Your task to perform on an android device: Go to battery settings Image 0: 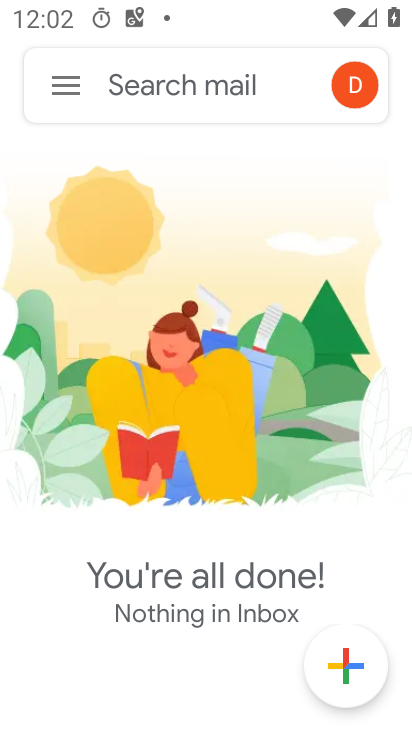
Step 0: press home button
Your task to perform on an android device: Go to battery settings Image 1: 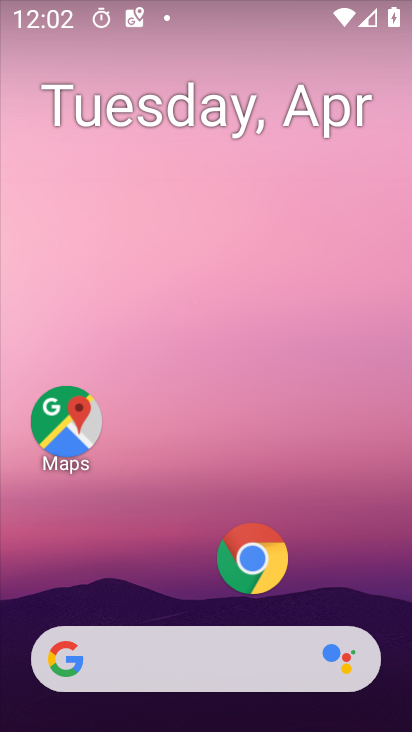
Step 1: drag from (153, 606) to (161, 201)
Your task to perform on an android device: Go to battery settings Image 2: 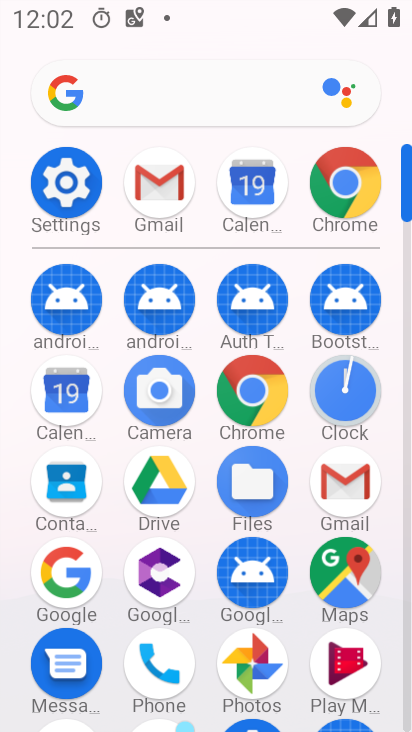
Step 2: drag from (198, 608) to (253, 246)
Your task to perform on an android device: Go to battery settings Image 3: 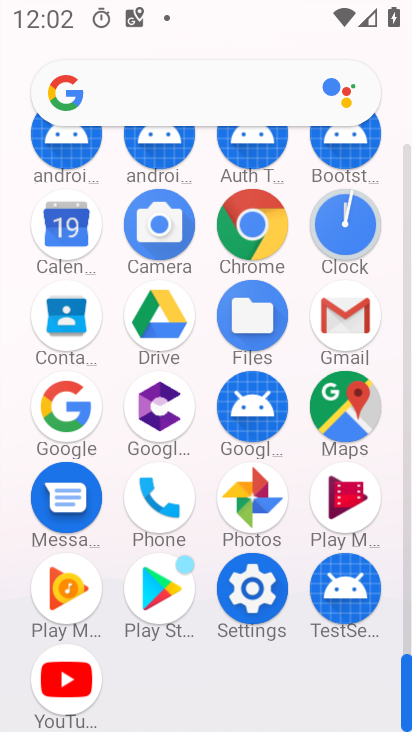
Step 3: click (256, 583)
Your task to perform on an android device: Go to battery settings Image 4: 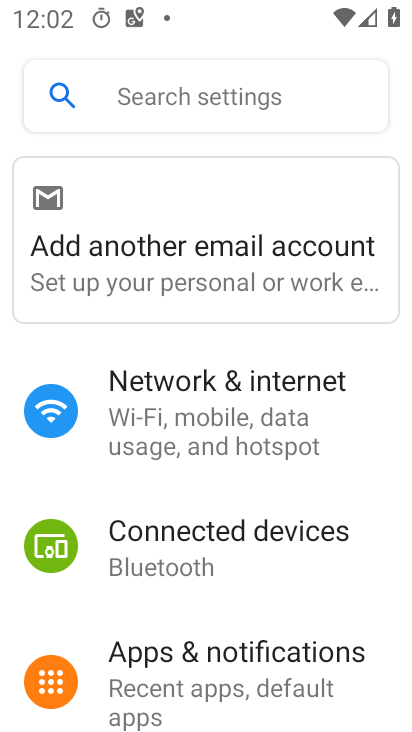
Step 4: drag from (205, 649) to (223, 250)
Your task to perform on an android device: Go to battery settings Image 5: 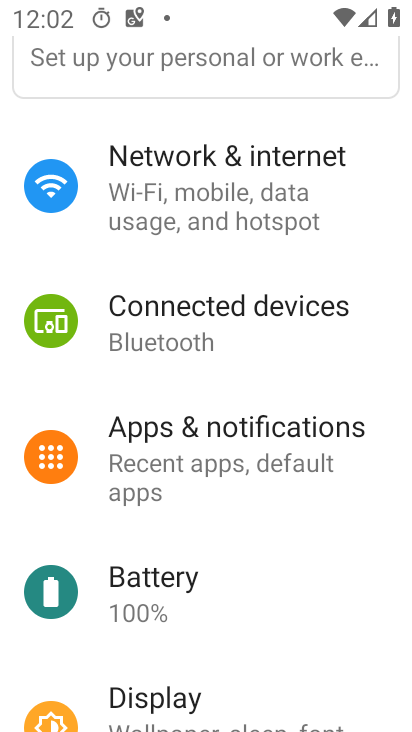
Step 5: click (160, 590)
Your task to perform on an android device: Go to battery settings Image 6: 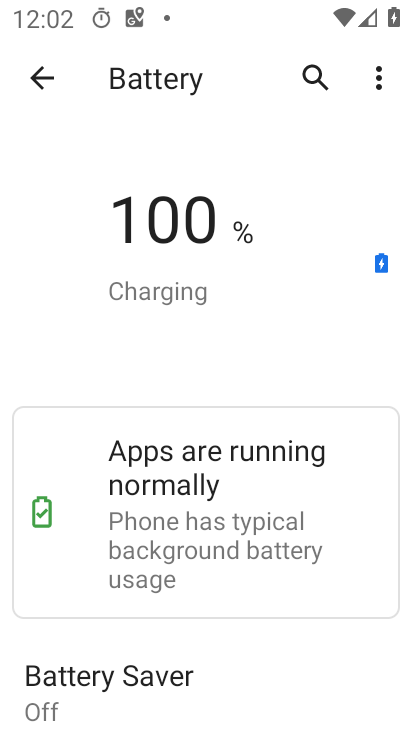
Step 6: task complete